Your task to perform on an android device: check battery use Image 0: 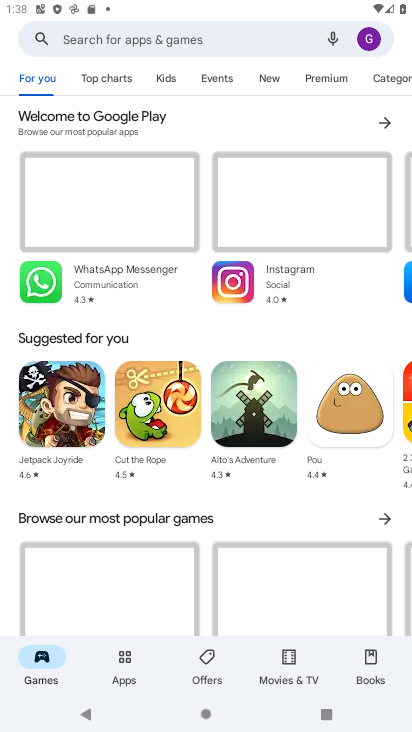
Step 0: press home button
Your task to perform on an android device: check battery use Image 1: 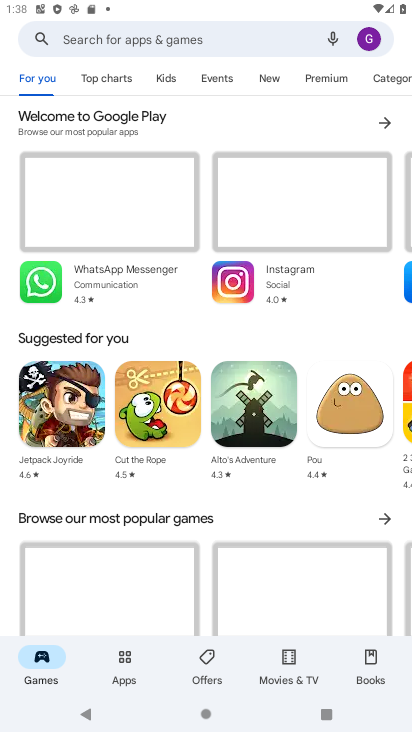
Step 1: drag from (365, 680) to (327, 57)
Your task to perform on an android device: check battery use Image 2: 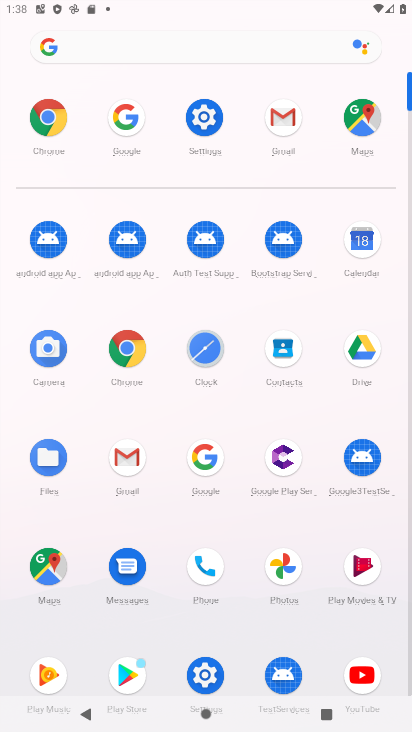
Step 2: click (195, 664)
Your task to perform on an android device: check battery use Image 3: 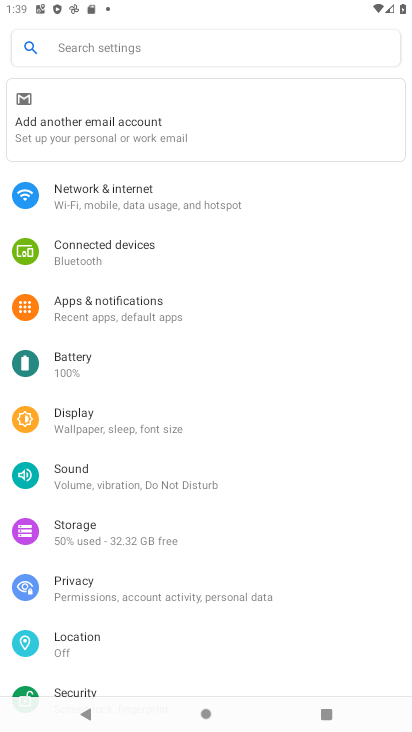
Step 3: click (105, 365)
Your task to perform on an android device: check battery use Image 4: 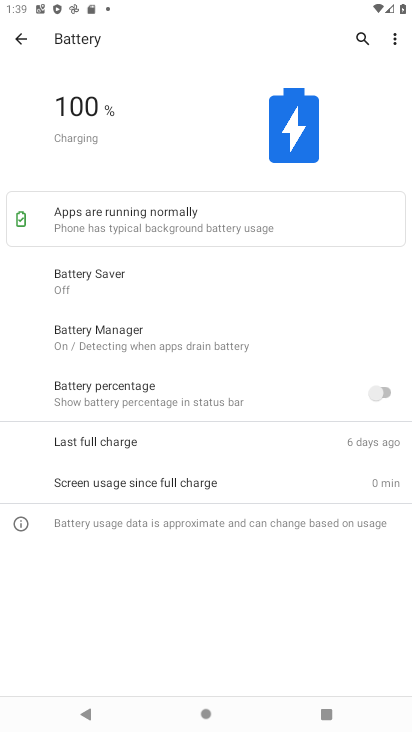
Step 4: click (388, 34)
Your task to perform on an android device: check battery use Image 5: 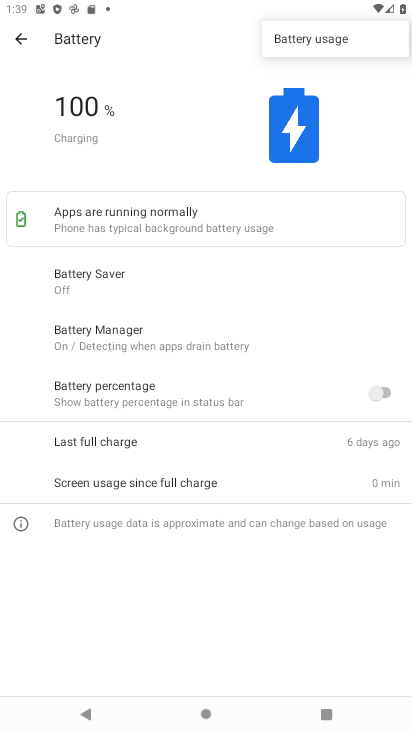
Step 5: click (332, 42)
Your task to perform on an android device: check battery use Image 6: 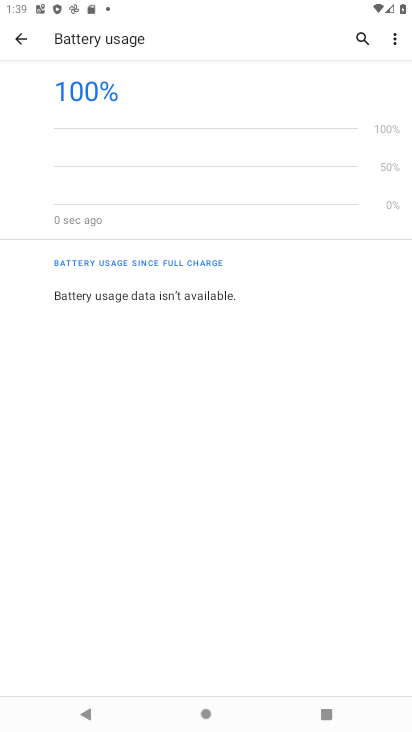
Step 6: task complete